Your task to perform on an android device: turn pop-ups on in chrome Image 0: 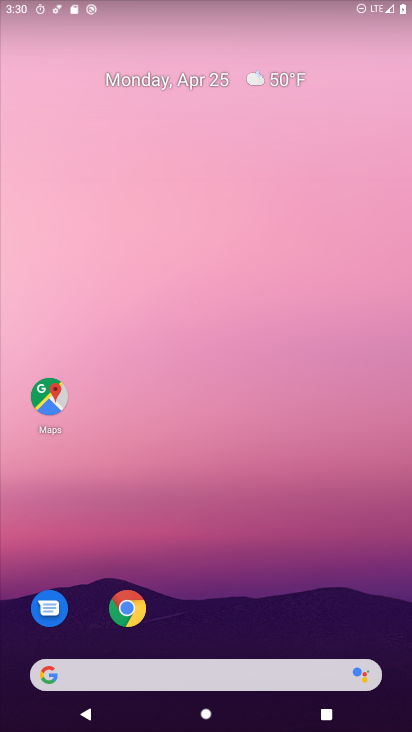
Step 0: click (127, 606)
Your task to perform on an android device: turn pop-ups on in chrome Image 1: 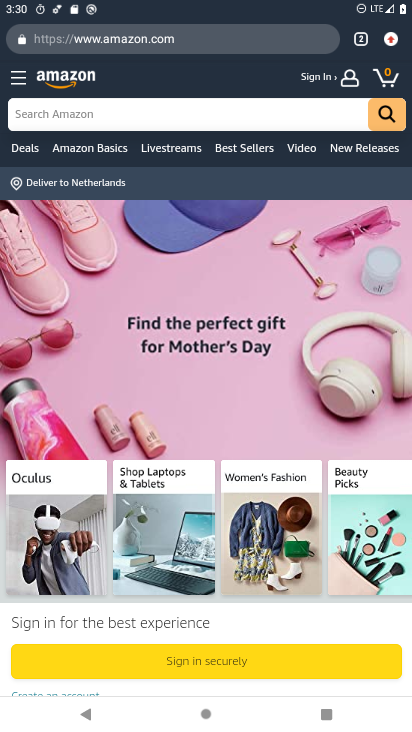
Step 1: click (385, 38)
Your task to perform on an android device: turn pop-ups on in chrome Image 2: 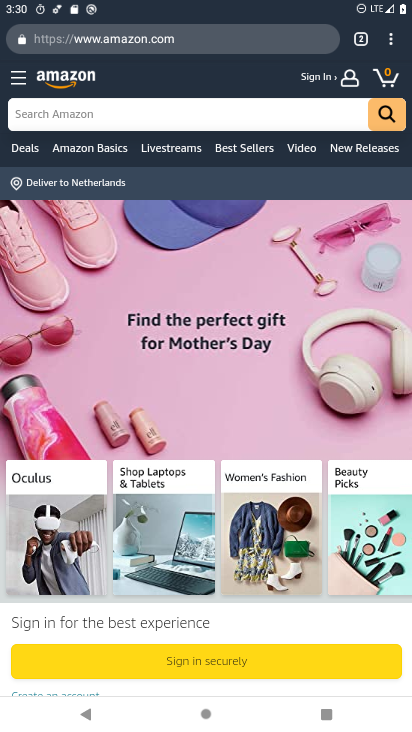
Step 2: drag from (393, 43) to (264, 519)
Your task to perform on an android device: turn pop-ups on in chrome Image 3: 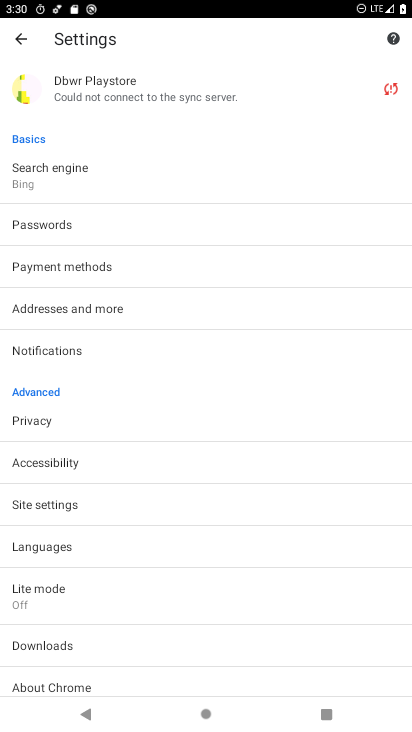
Step 3: click (80, 504)
Your task to perform on an android device: turn pop-ups on in chrome Image 4: 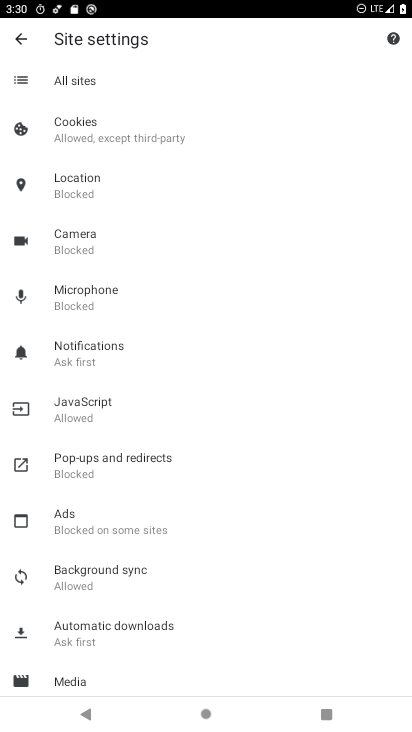
Step 4: click (140, 460)
Your task to perform on an android device: turn pop-ups on in chrome Image 5: 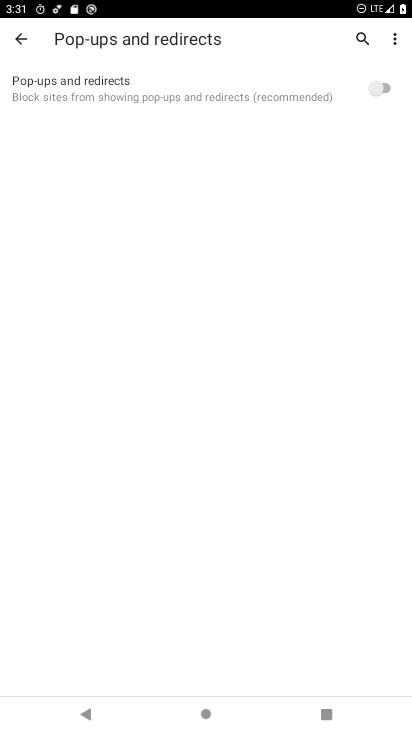
Step 5: click (388, 88)
Your task to perform on an android device: turn pop-ups on in chrome Image 6: 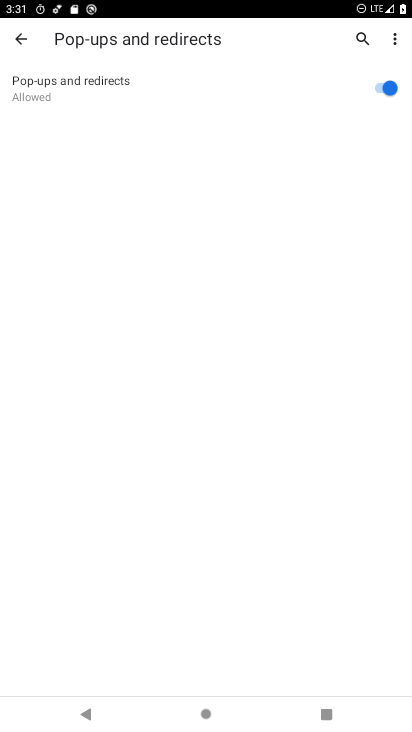
Step 6: task complete